Your task to perform on an android device: turn off notifications in google photos Image 0: 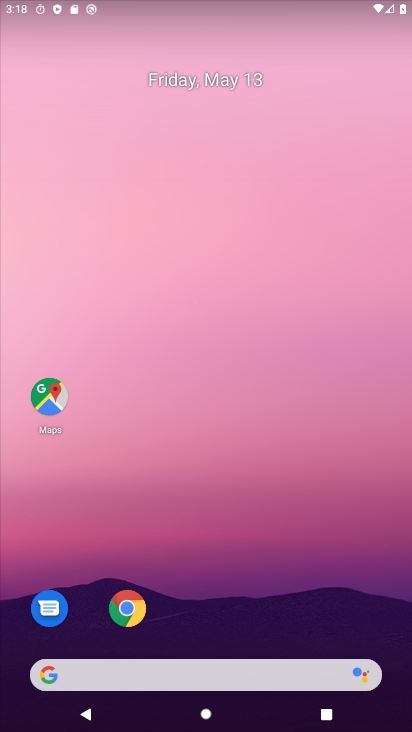
Step 0: drag from (274, 614) to (341, 43)
Your task to perform on an android device: turn off notifications in google photos Image 1: 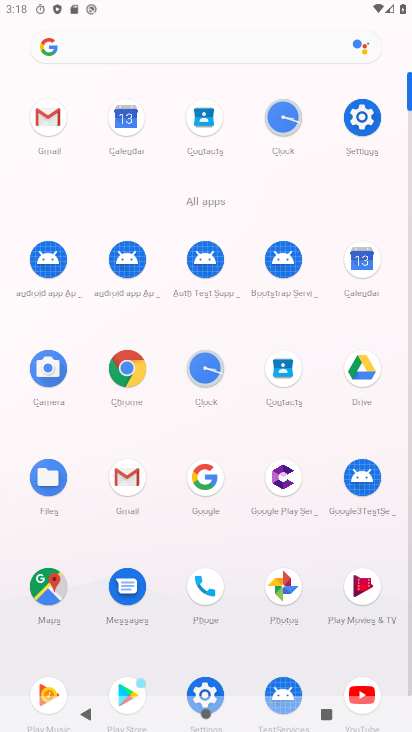
Step 1: click (272, 598)
Your task to perform on an android device: turn off notifications in google photos Image 2: 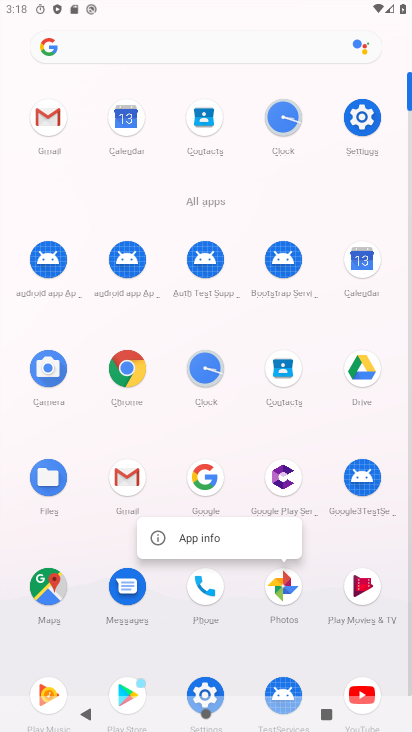
Step 2: click (232, 548)
Your task to perform on an android device: turn off notifications in google photos Image 3: 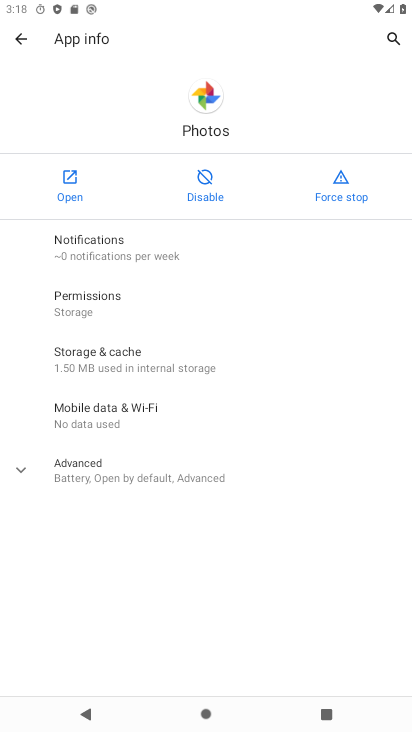
Step 3: click (121, 242)
Your task to perform on an android device: turn off notifications in google photos Image 4: 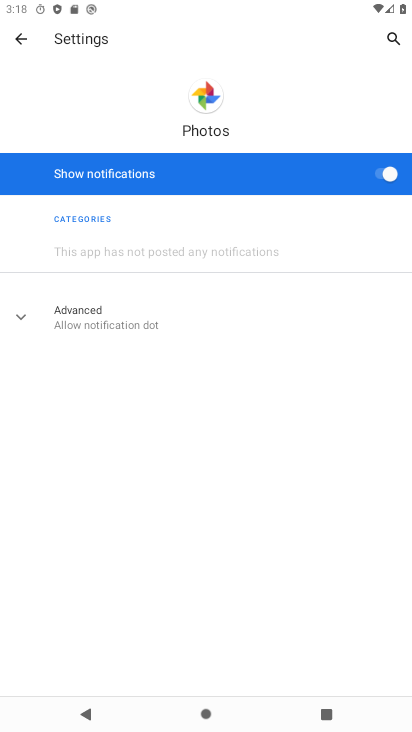
Step 4: click (385, 177)
Your task to perform on an android device: turn off notifications in google photos Image 5: 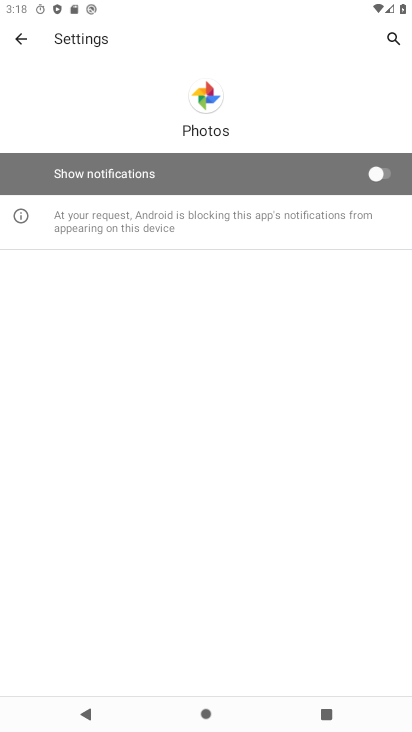
Step 5: task complete